Your task to perform on an android device: Go to network settings Image 0: 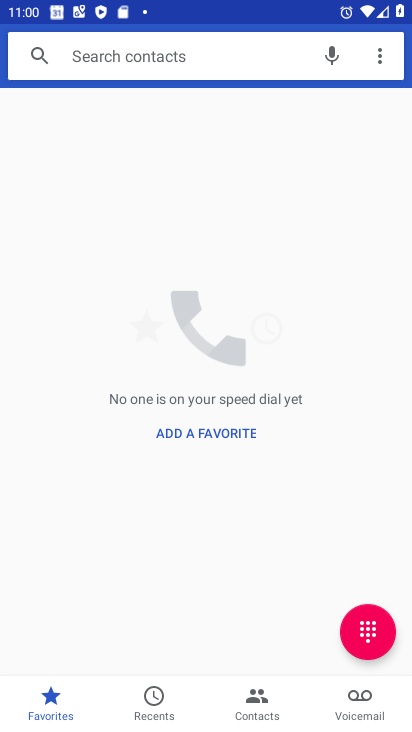
Step 0: press home button
Your task to perform on an android device: Go to network settings Image 1: 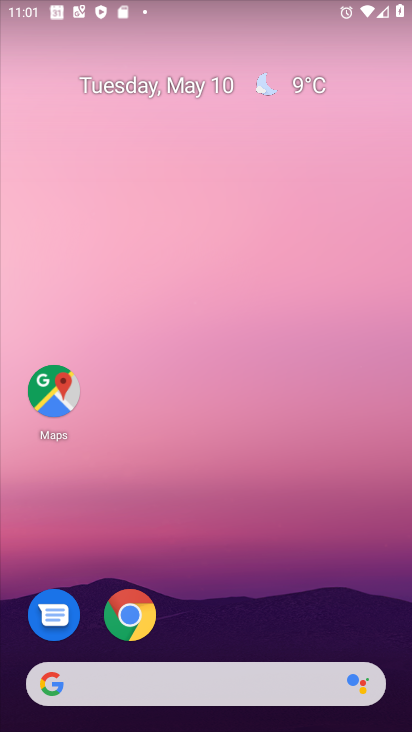
Step 1: drag from (219, 629) to (341, 118)
Your task to perform on an android device: Go to network settings Image 2: 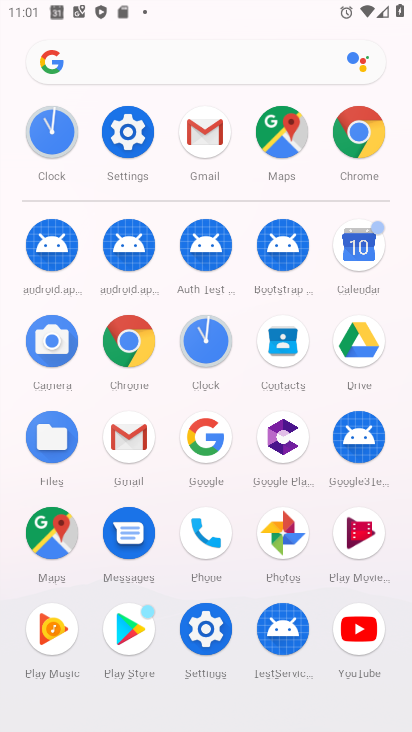
Step 2: click (129, 128)
Your task to perform on an android device: Go to network settings Image 3: 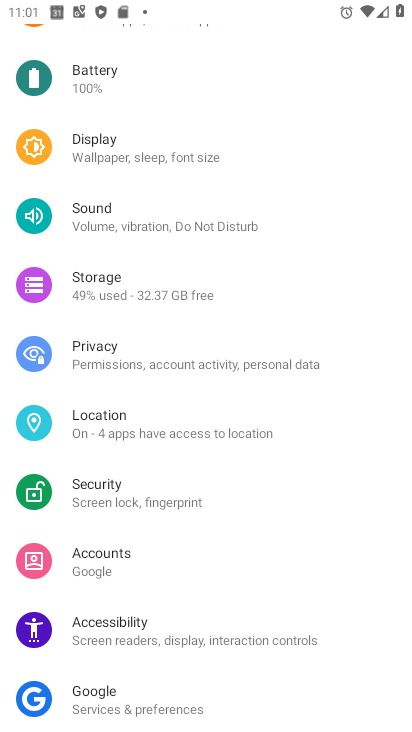
Step 3: drag from (119, 102) to (122, 580)
Your task to perform on an android device: Go to network settings Image 4: 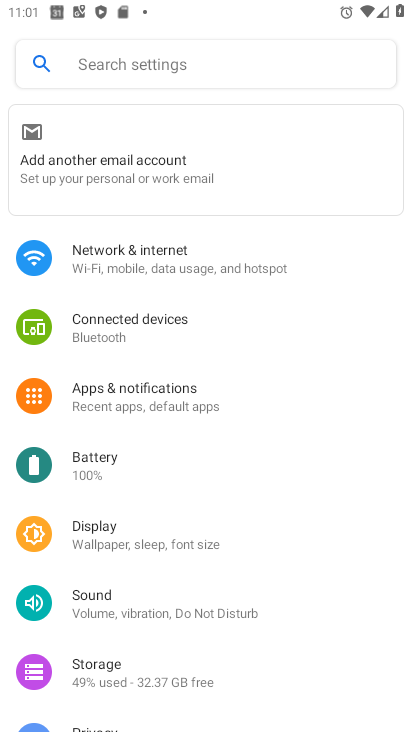
Step 4: click (135, 244)
Your task to perform on an android device: Go to network settings Image 5: 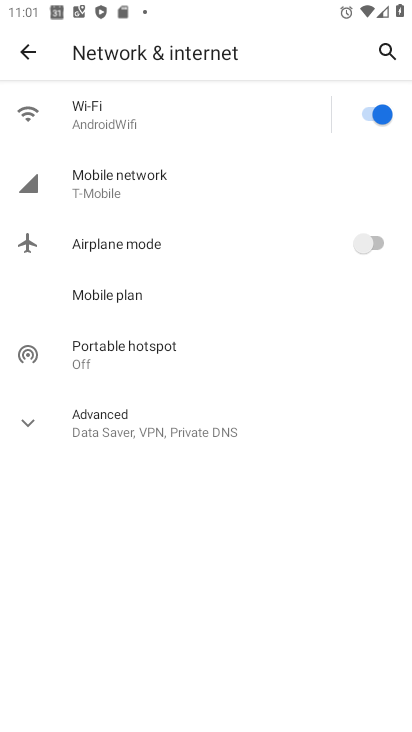
Step 5: click (49, 418)
Your task to perform on an android device: Go to network settings Image 6: 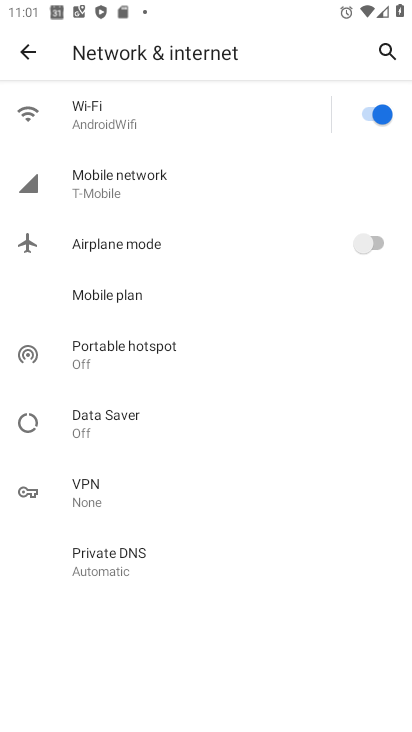
Step 6: task complete